Your task to perform on an android device: allow notifications from all sites in the chrome app Image 0: 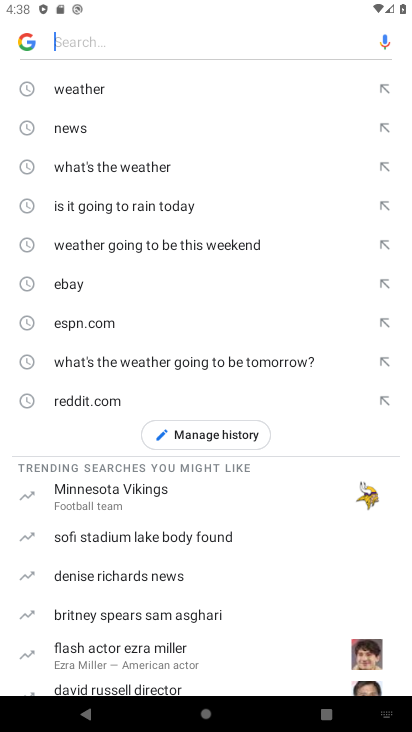
Step 0: press home button
Your task to perform on an android device: allow notifications from all sites in the chrome app Image 1: 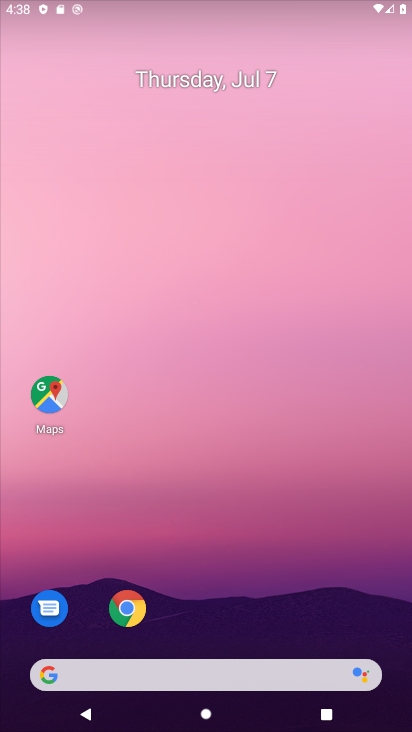
Step 1: drag from (203, 620) to (227, 59)
Your task to perform on an android device: allow notifications from all sites in the chrome app Image 2: 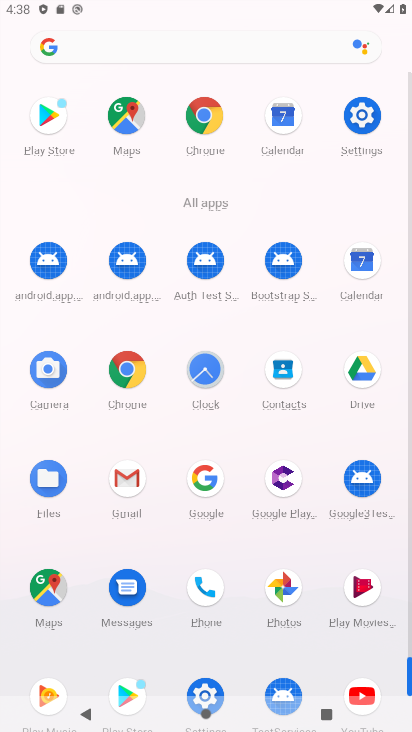
Step 2: click (199, 110)
Your task to perform on an android device: allow notifications from all sites in the chrome app Image 3: 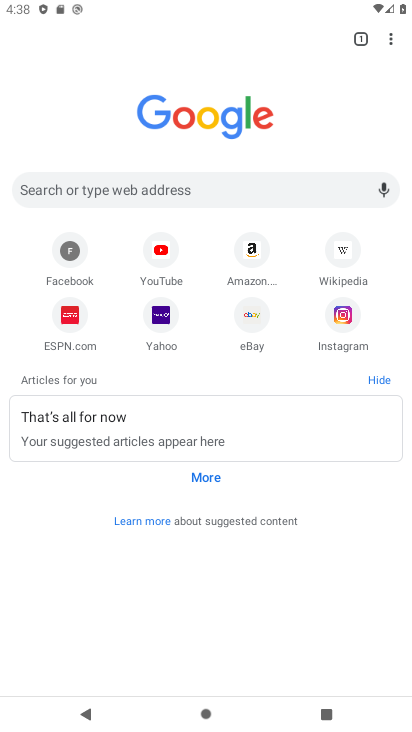
Step 3: click (386, 36)
Your task to perform on an android device: allow notifications from all sites in the chrome app Image 4: 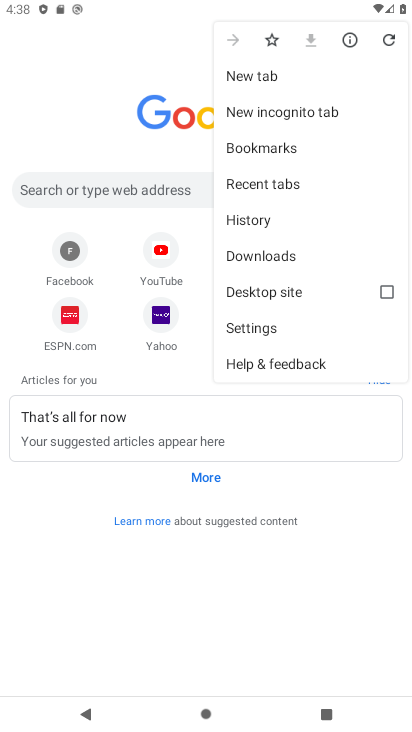
Step 4: click (277, 324)
Your task to perform on an android device: allow notifications from all sites in the chrome app Image 5: 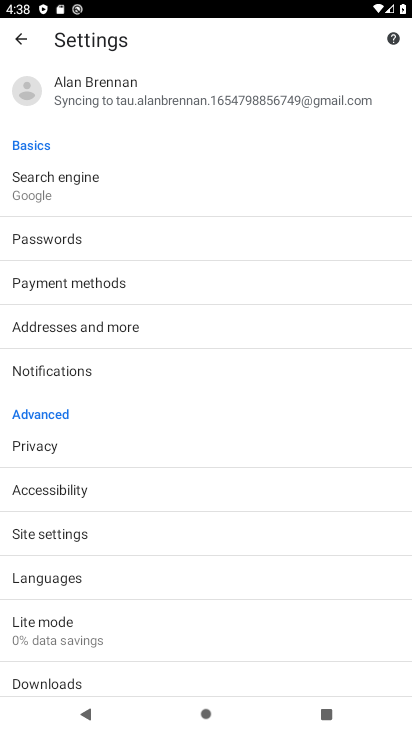
Step 5: click (93, 533)
Your task to perform on an android device: allow notifications from all sites in the chrome app Image 6: 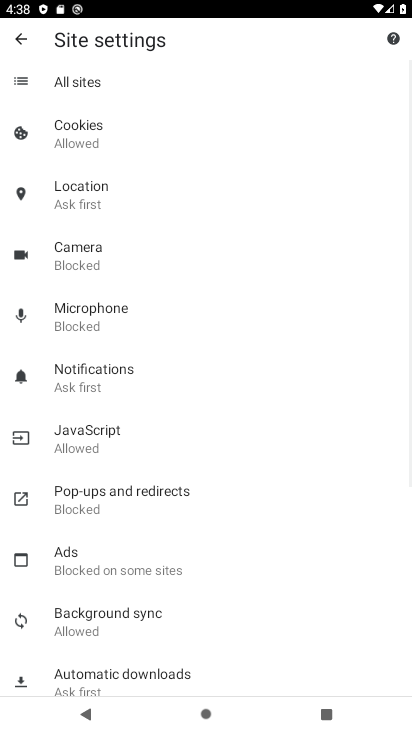
Step 6: click (106, 71)
Your task to perform on an android device: allow notifications from all sites in the chrome app Image 7: 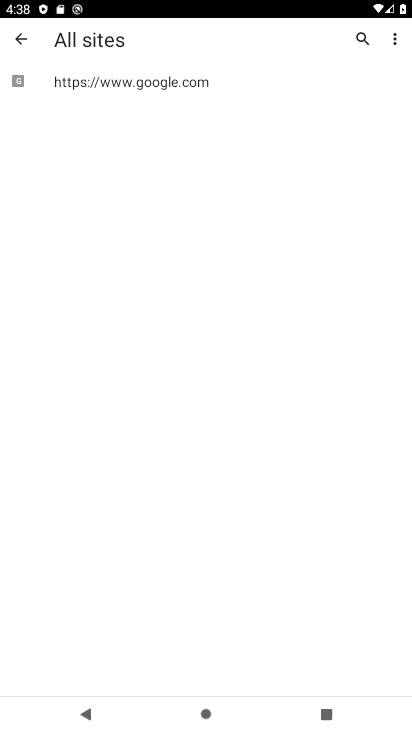
Step 7: click (132, 85)
Your task to perform on an android device: allow notifications from all sites in the chrome app Image 8: 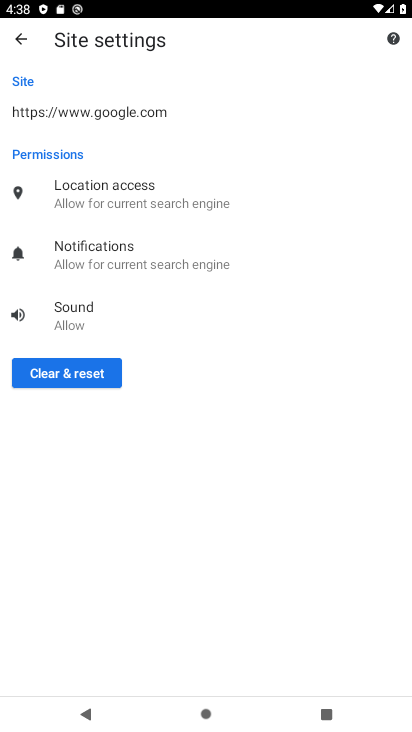
Step 8: task complete